Your task to perform on an android device: turn notification dots on Image 0: 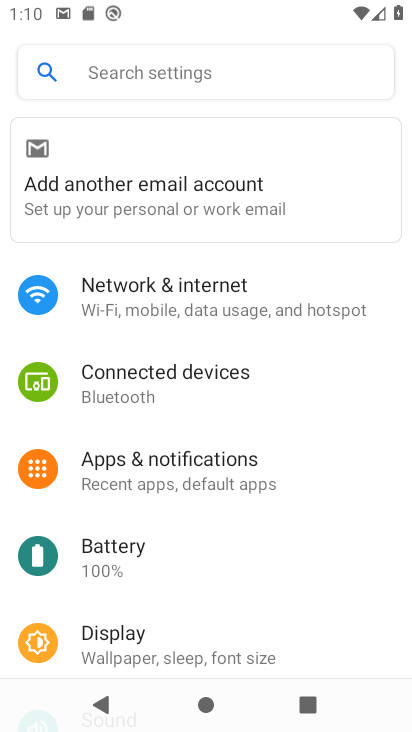
Step 0: click (215, 482)
Your task to perform on an android device: turn notification dots on Image 1: 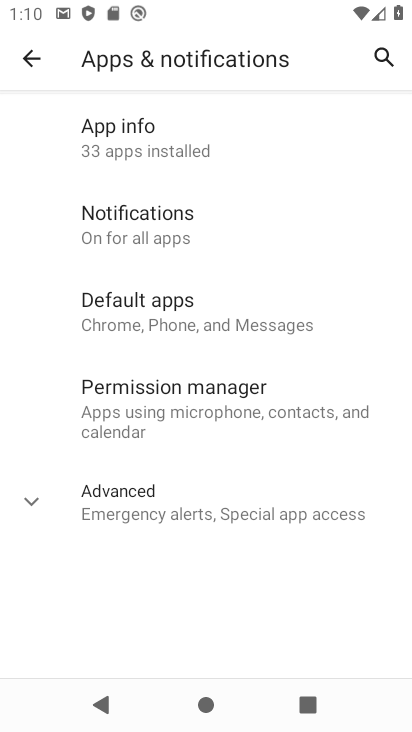
Step 1: click (171, 231)
Your task to perform on an android device: turn notification dots on Image 2: 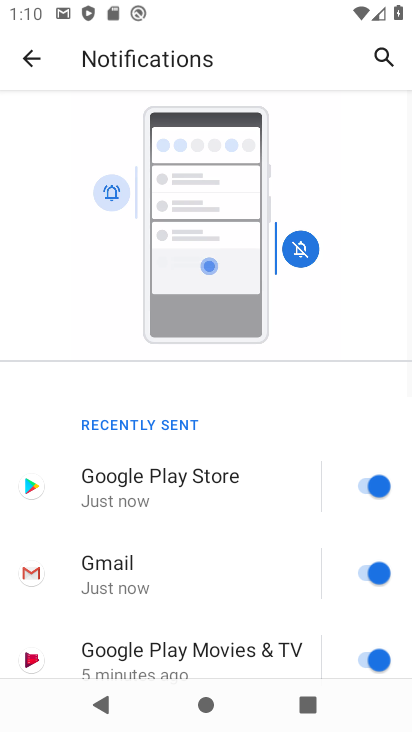
Step 2: drag from (224, 517) to (277, 20)
Your task to perform on an android device: turn notification dots on Image 3: 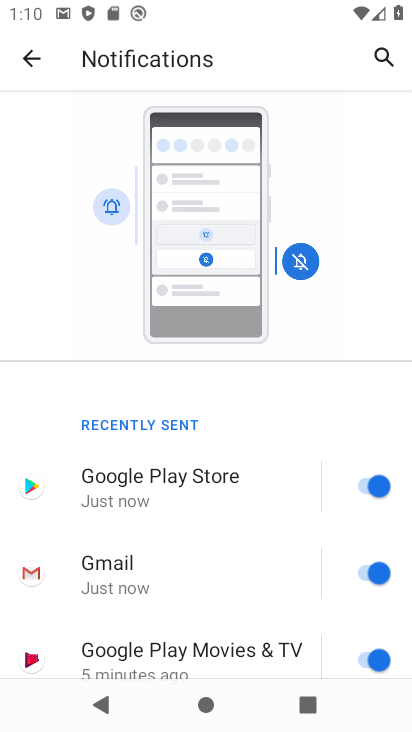
Step 3: drag from (203, 571) to (81, 38)
Your task to perform on an android device: turn notification dots on Image 4: 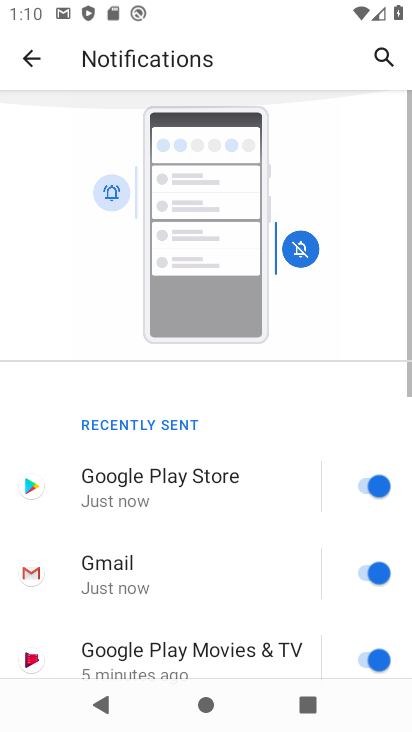
Step 4: drag from (201, 589) to (48, 33)
Your task to perform on an android device: turn notification dots on Image 5: 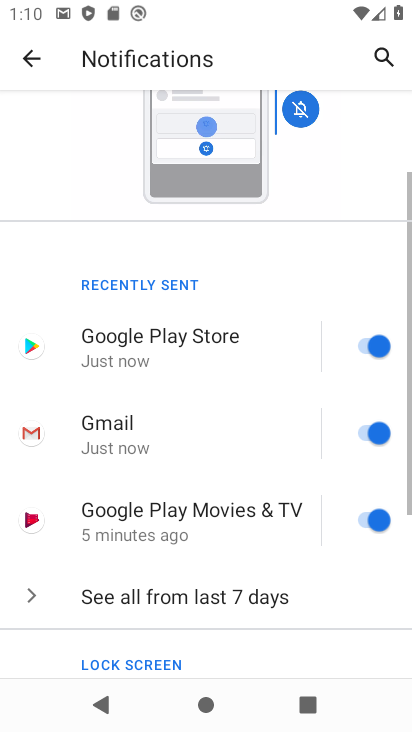
Step 5: drag from (165, 654) to (123, 0)
Your task to perform on an android device: turn notification dots on Image 6: 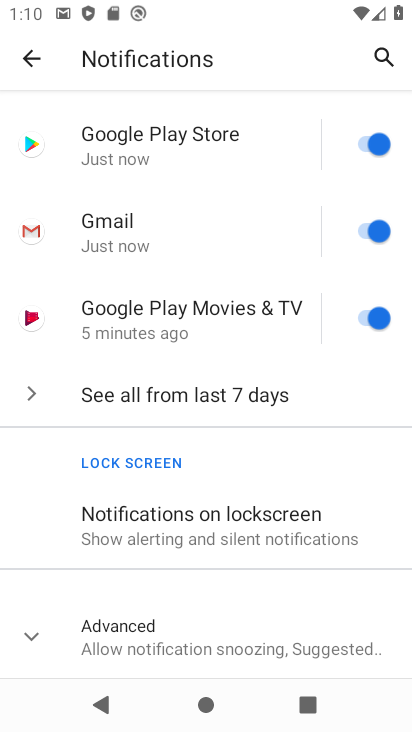
Step 6: click (195, 659)
Your task to perform on an android device: turn notification dots on Image 7: 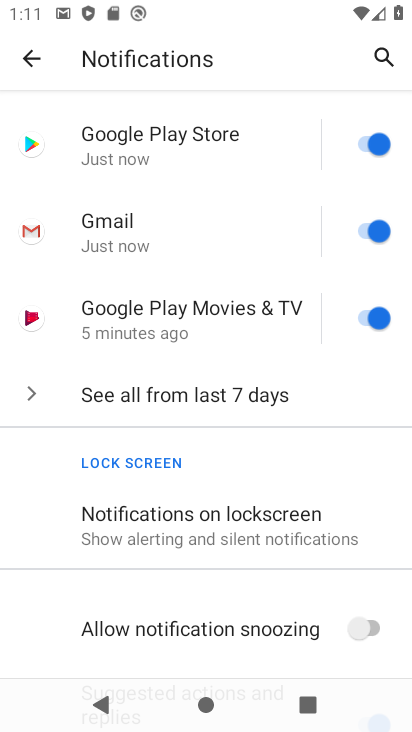
Step 7: task complete